Your task to perform on an android device: check storage Image 0: 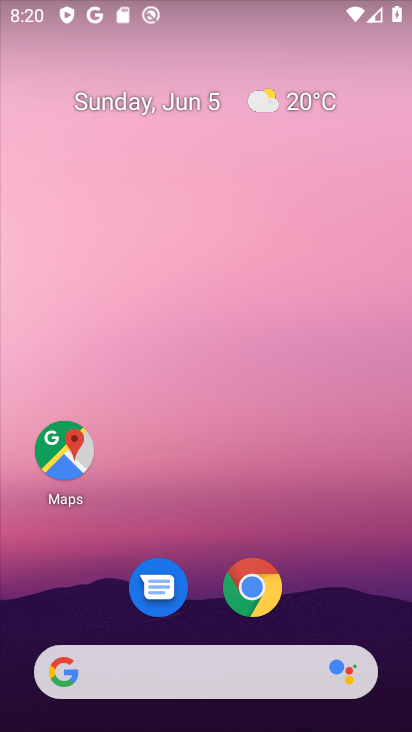
Step 0: click (390, 593)
Your task to perform on an android device: check storage Image 1: 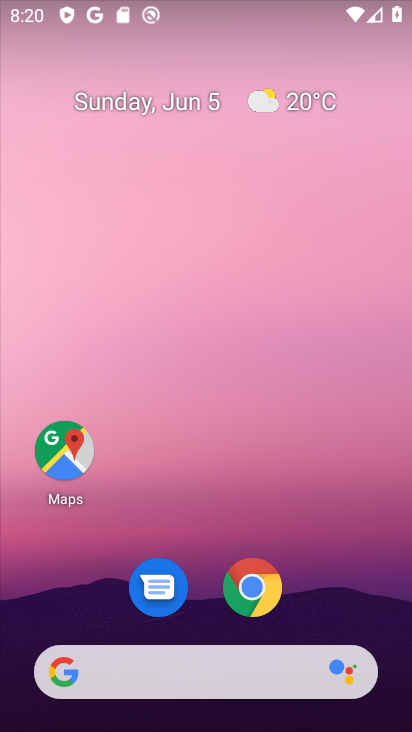
Step 1: drag from (357, 601) to (226, 190)
Your task to perform on an android device: check storage Image 2: 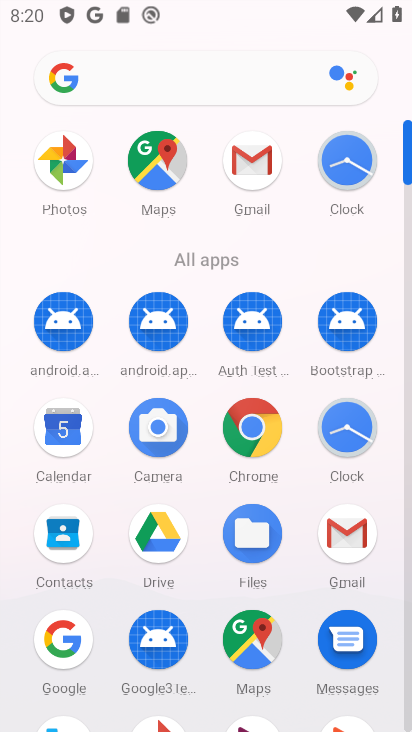
Step 2: drag from (308, 453) to (218, 10)
Your task to perform on an android device: check storage Image 3: 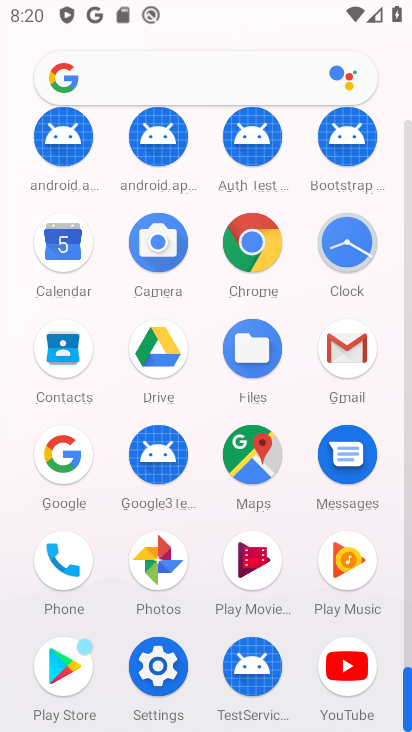
Step 3: click (156, 648)
Your task to perform on an android device: check storage Image 4: 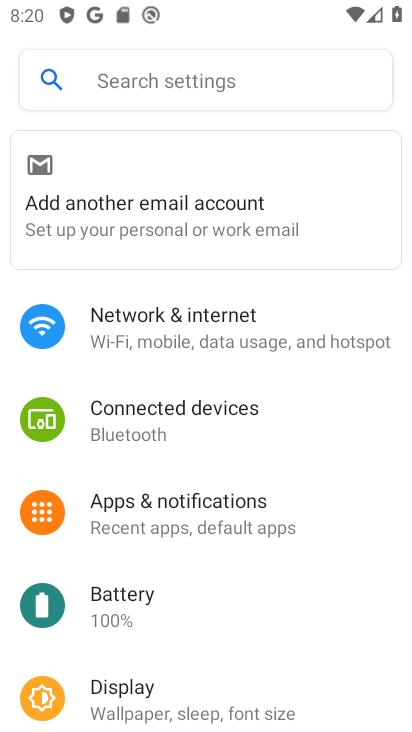
Step 4: drag from (159, 626) to (137, 273)
Your task to perform on an android device: check storage Image 5: 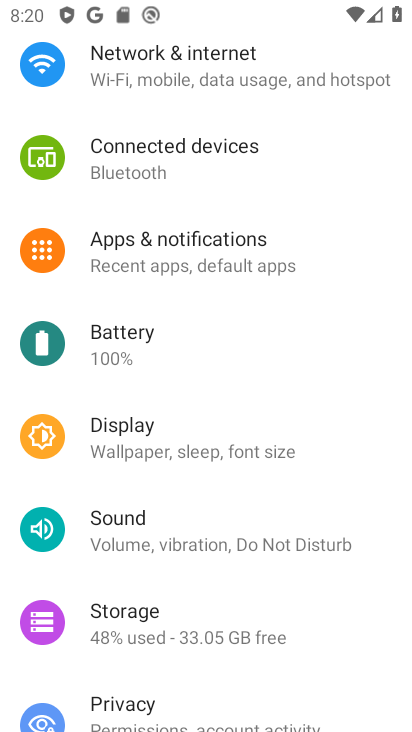
Step 5: click (135, 605)
Your task to perform on an android device: check storage Image 6: 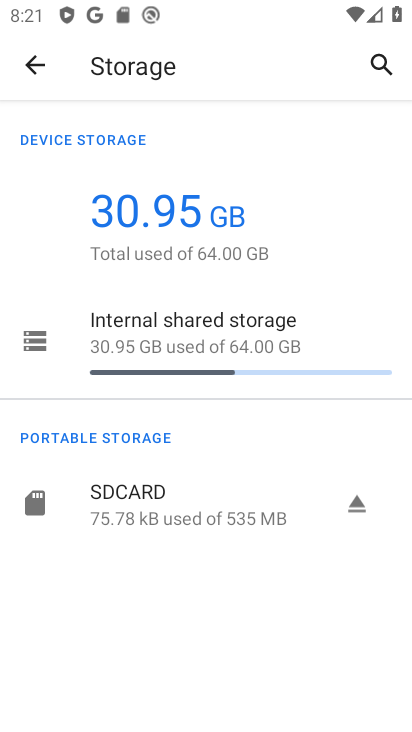
Step 6: task complete